Your task to perform on an android device: Go to settings Image 0: 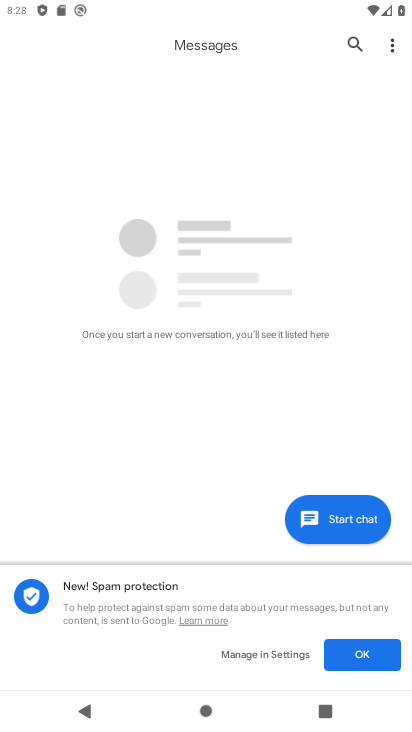
Step 0: press home button
Your task to perform on an android device: Go to settings Image 1: 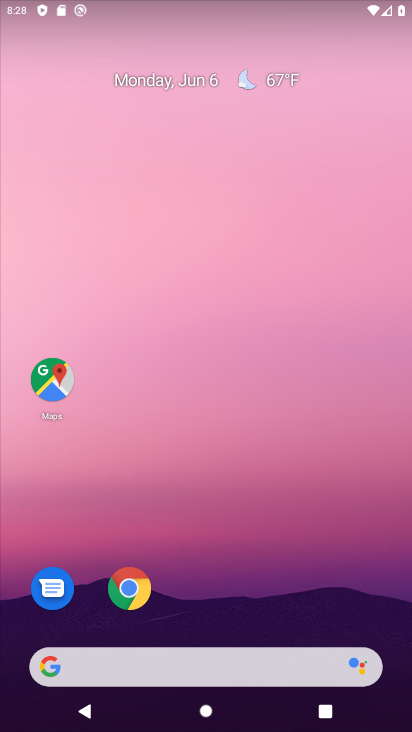
Step 1: drag from (274, 639) to (352, 6)
Your task to perform on an android device: Go to settings Image 2: 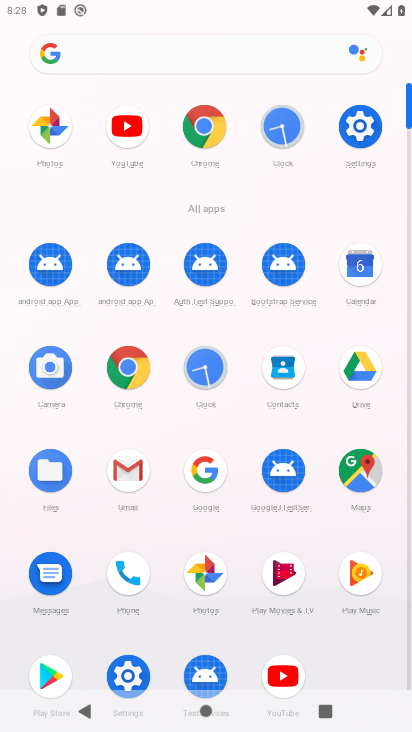
Step 2: click (373, 130)
Your task to perform on an android device: Go to settings Image 3: 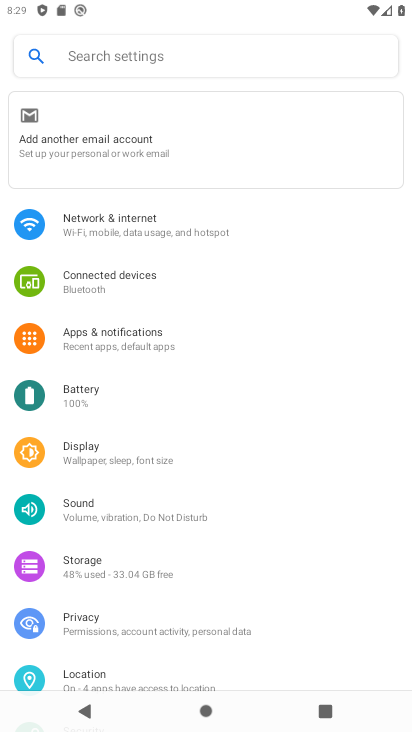
Step 3: task complete